Your task to perform on an android device: turn off smart reply in the gmail app Image 0: 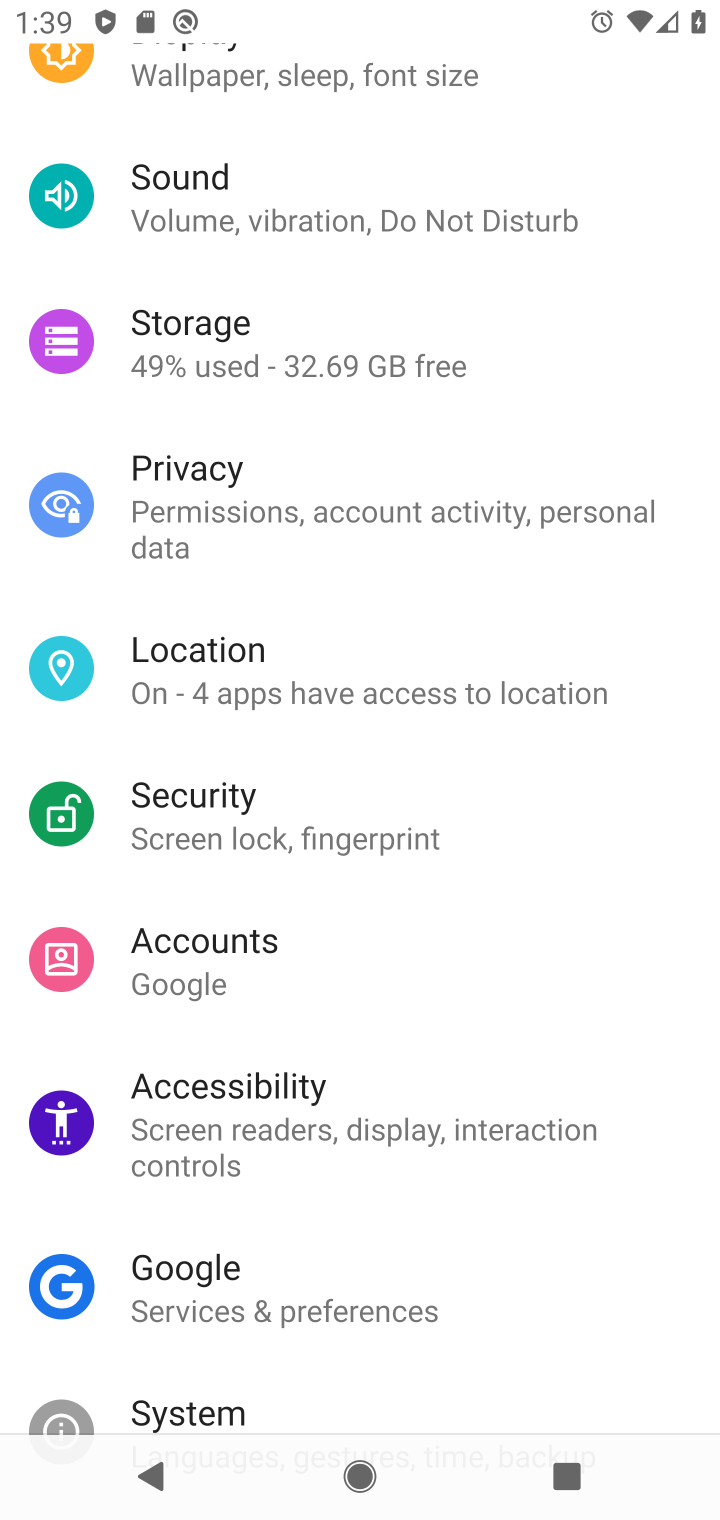
Step 0: press home button
Your task to perform on an android device: turn off smart reply in the gmail app Image 1: 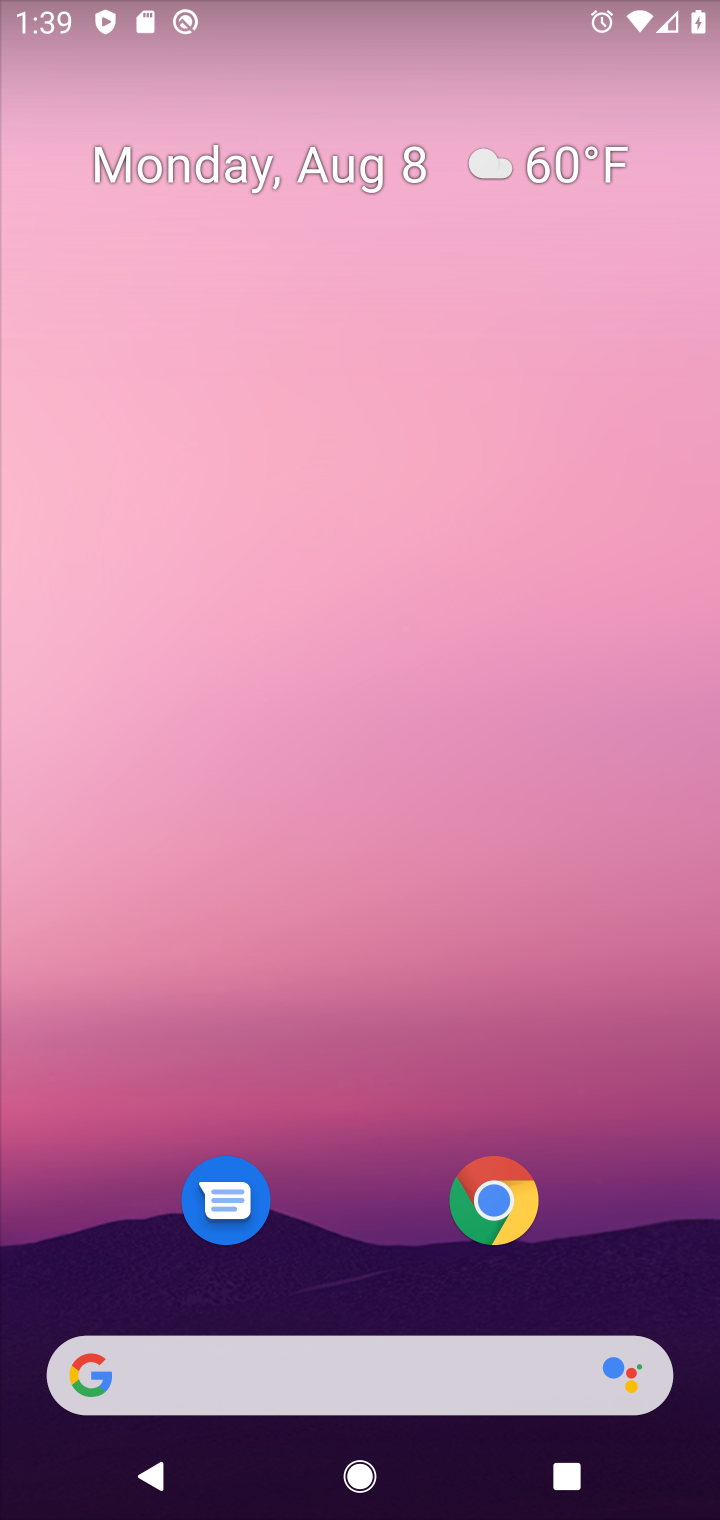
Step 1: drag from (370, 1271) to (381, 193)
Your task to perform on an android device: turn off smart reply in the gmail app Image 2: 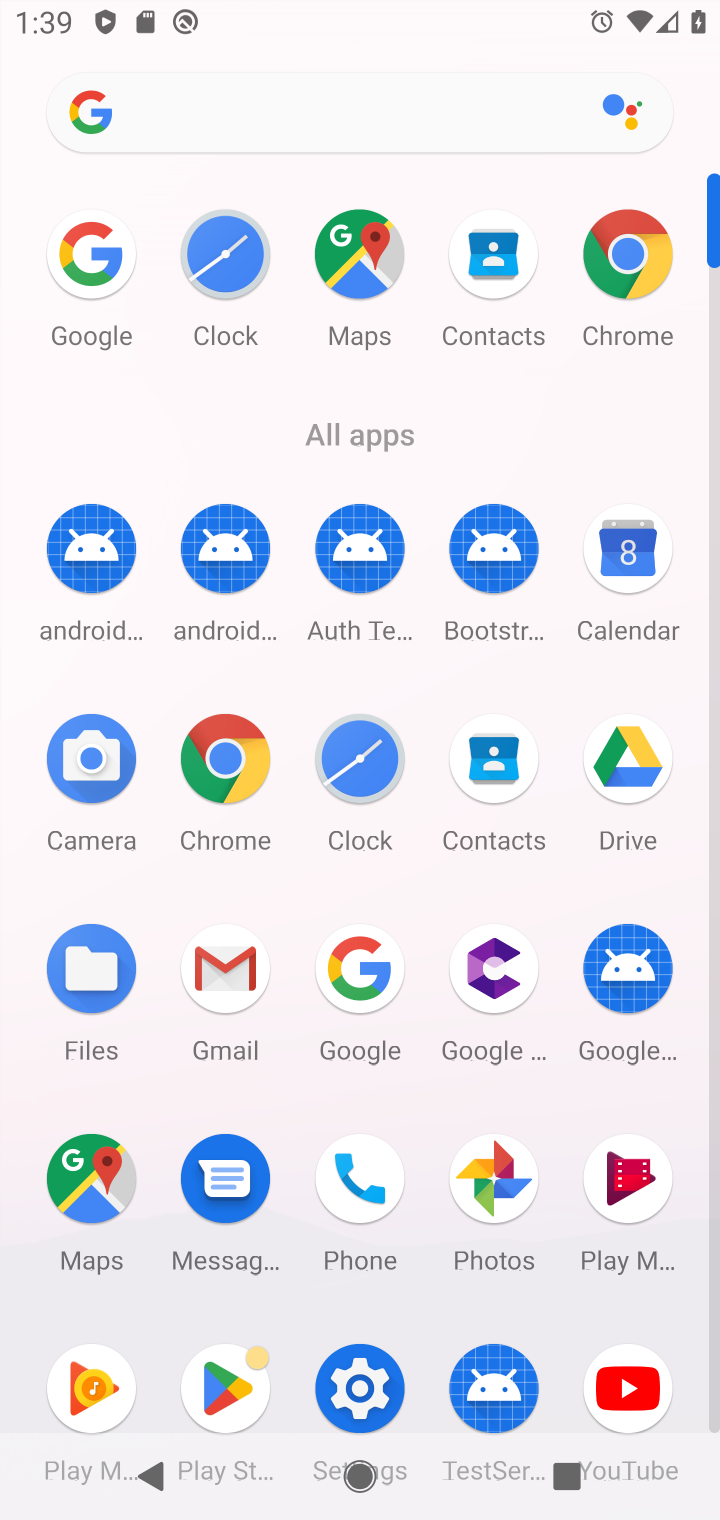
Step 2: click (225, 948)
Your task to perform on an android device: turn off smart reply in the gmail app Image 3: 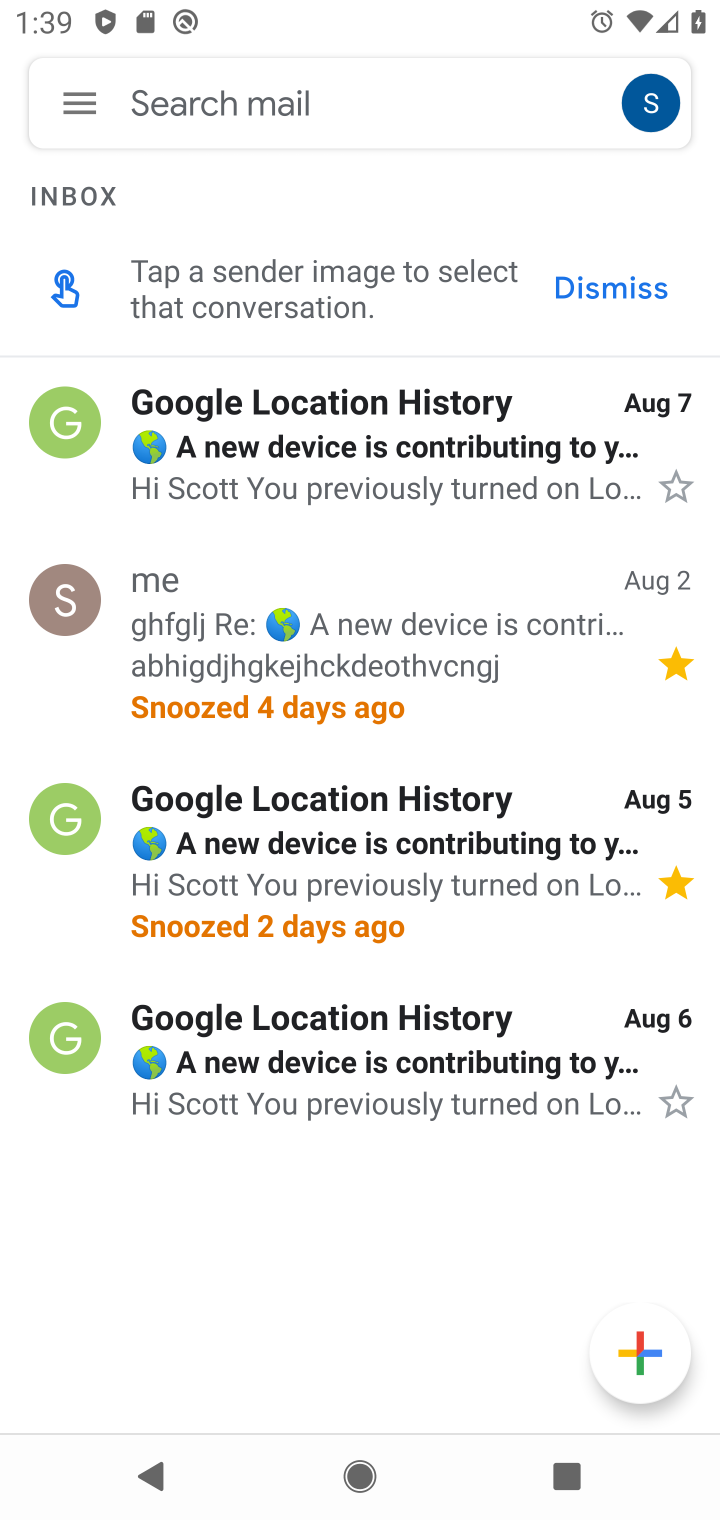
Step 3: click (57, 100)
Your task to perform on an android device: turn off smart reply in the gmail app Image 4: 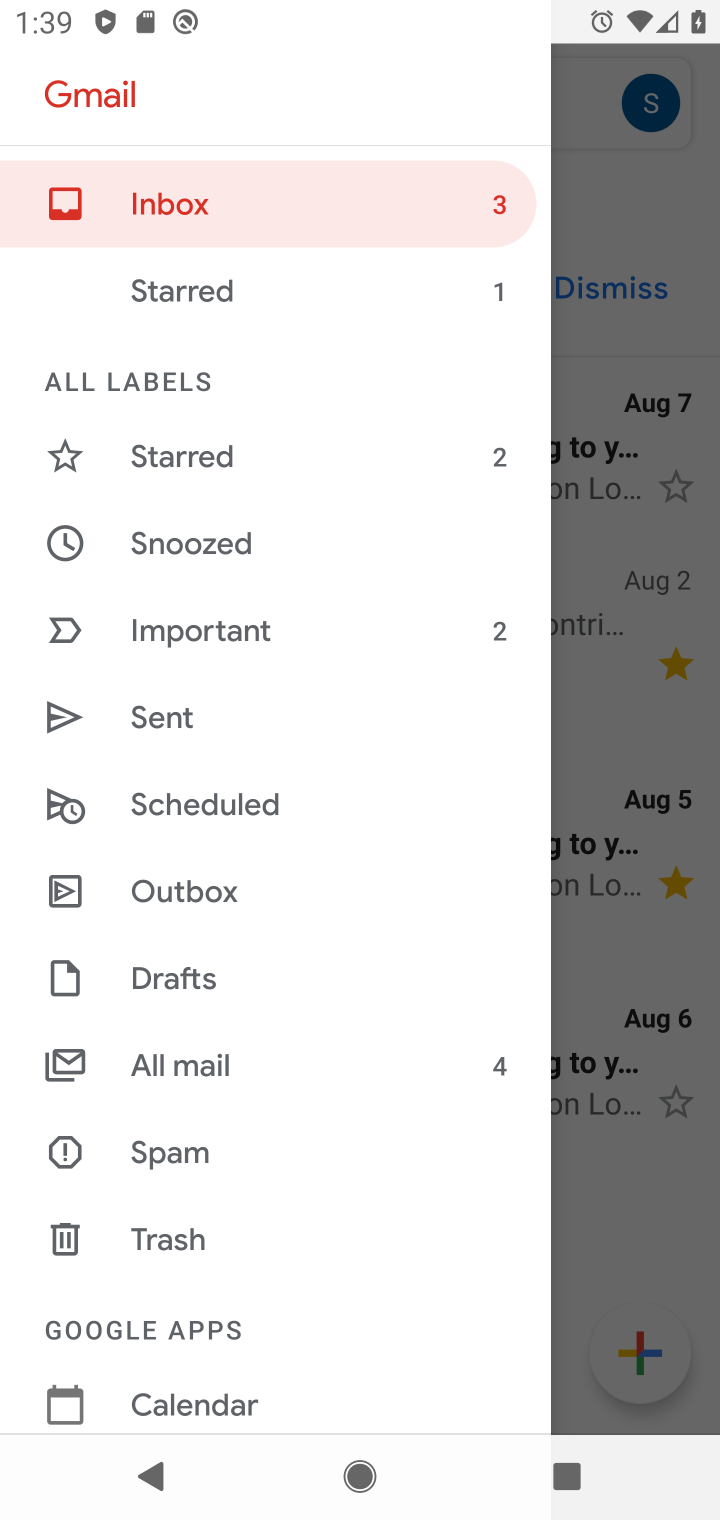
Step 4: drag from (241, 1302) to (367, 314)
Your task to perform on an android device: turn off smart reply in the gmail app Image 5: 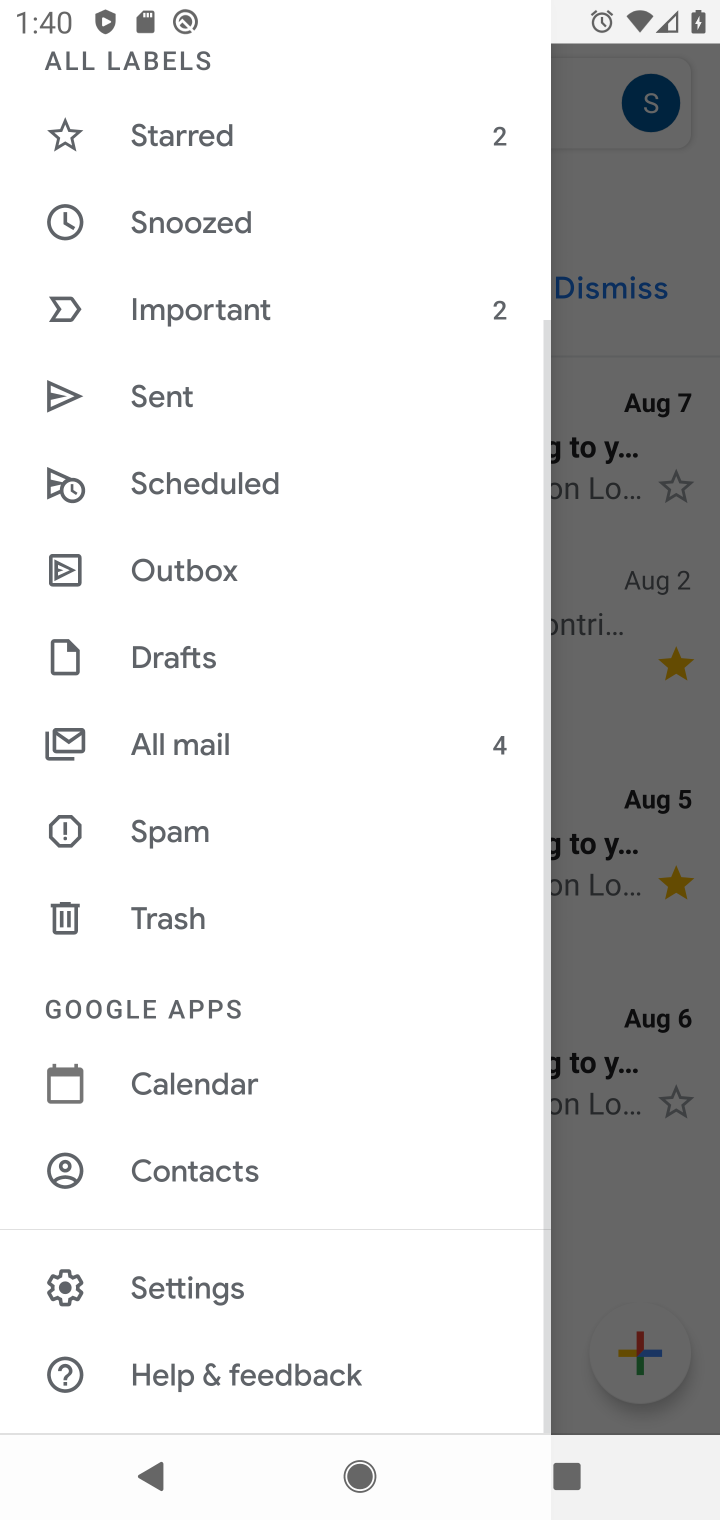
Step 5: click (252, 1280)
Your task to perform on an android device: turn off smart reply in the gmail app Image 6: 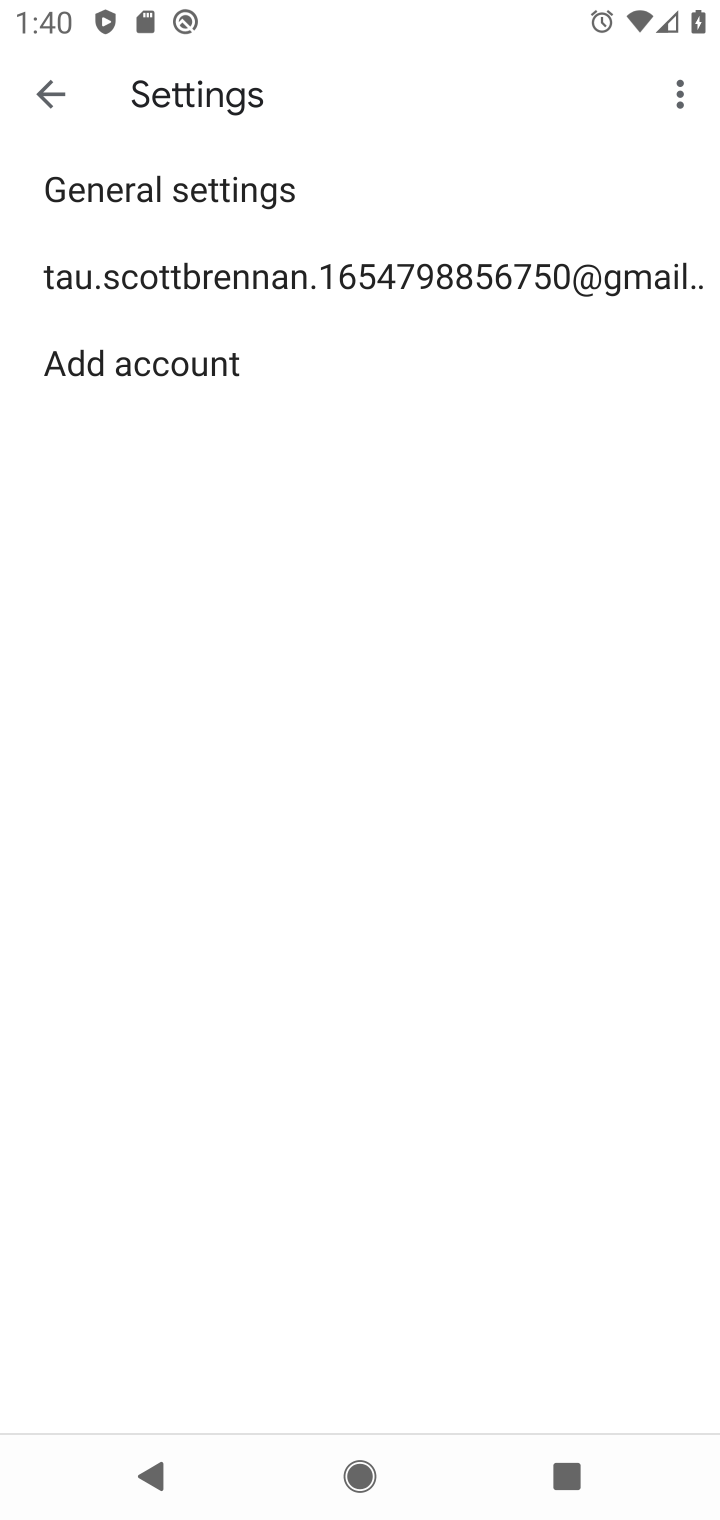
Step 6: click (351, 284)
Your task to perform on an android device: turn off smart reply in the gmail app Image 7: 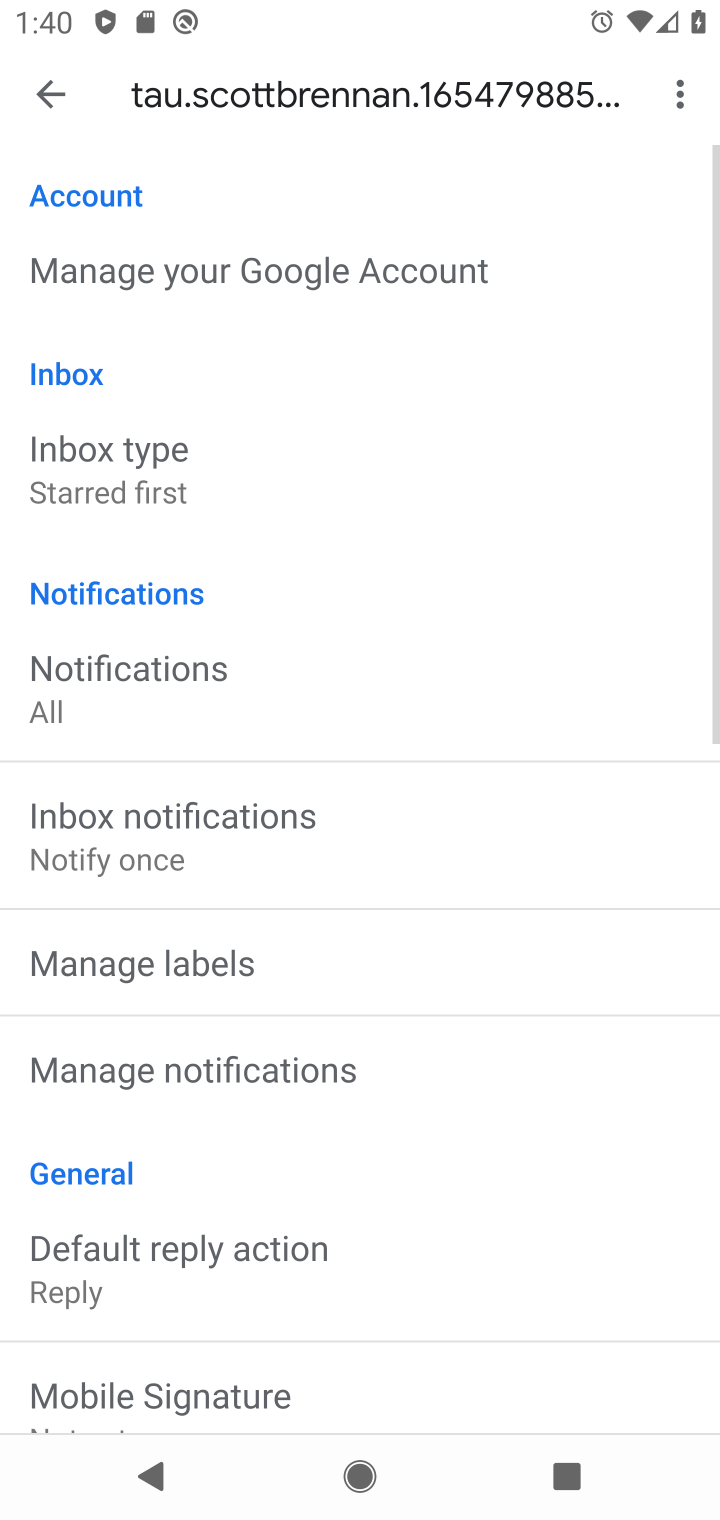
Step 7: drag from (268, 1331) to (417, 282)
Your task to perform on an android device: turn off smart reply in the gmail app Image 8: 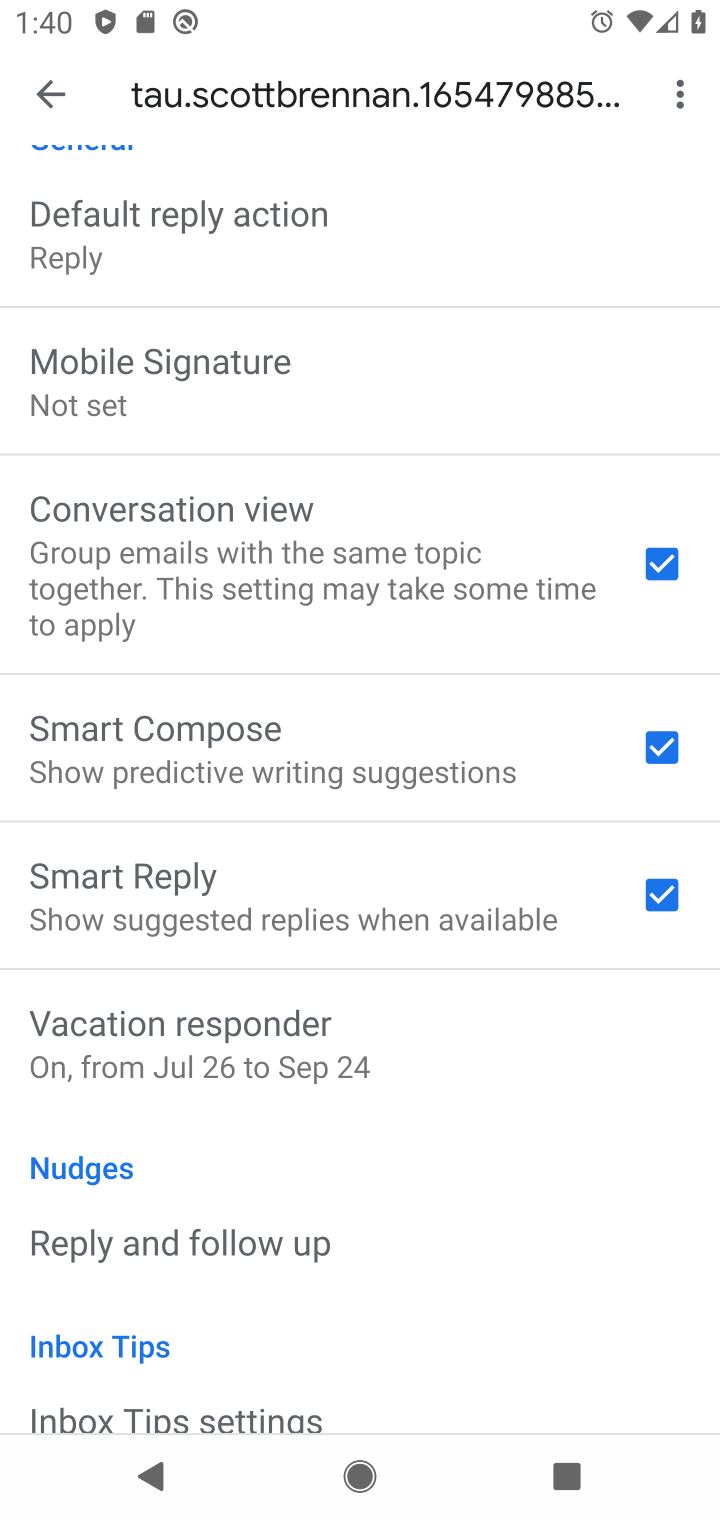
Step 8: click (662, 883)
Your task to perform on an android device: turn off smart reply in the gmail app Image 9: 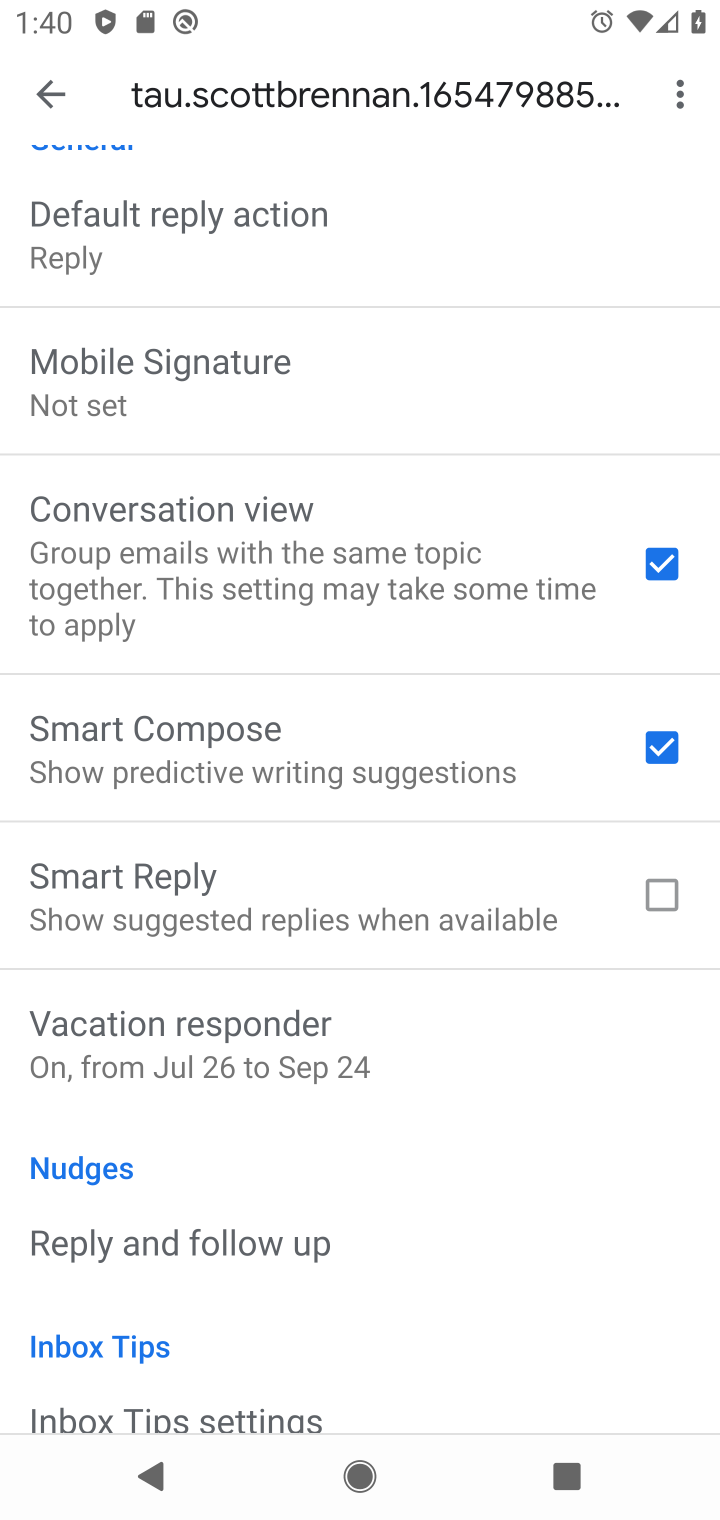
Step 9: task complete